Your task to perform on an android device: turn on translation in the chrome app Image 0: 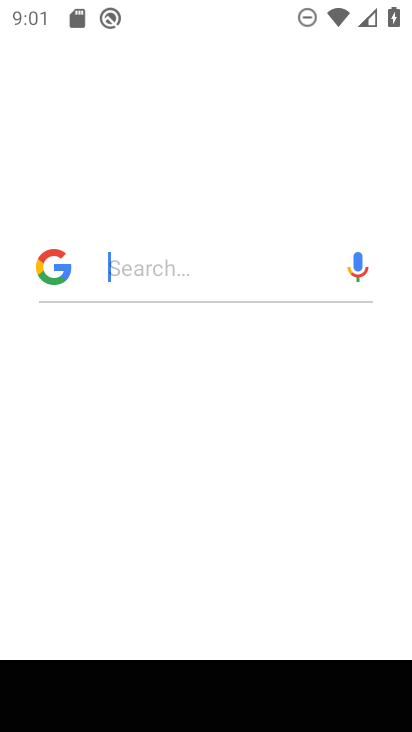
Step 0: drag from (1, 310) to (313, 468)
Your task to perform on an android device: turn on translation in the chrome app Image 1: 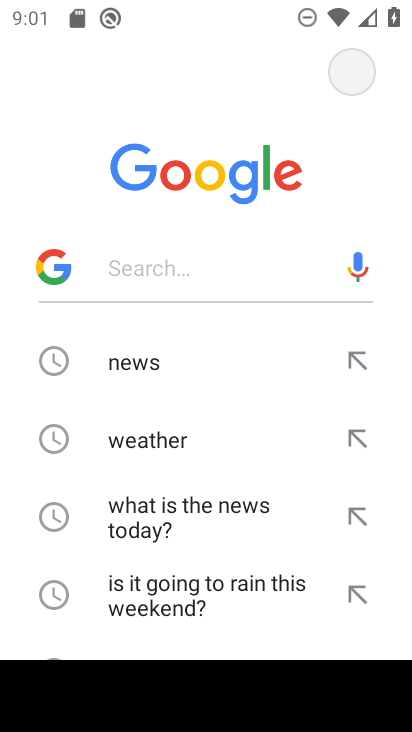
Step 1: press back button
Your task to perform on an android device: turn on translation in the chrome app Image 2: 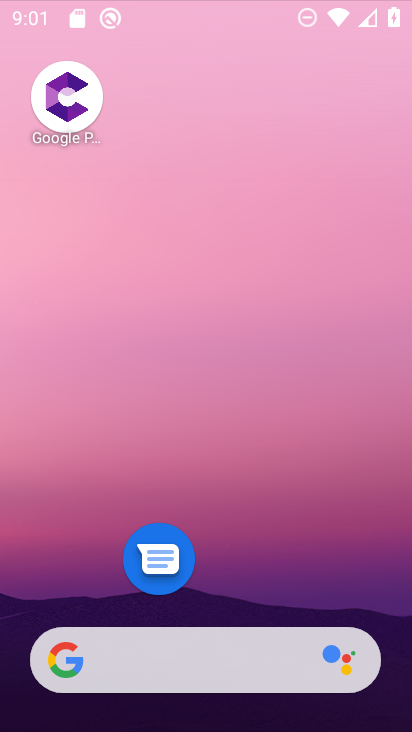
Step 2: press home button
Your task to perform on an android device: turn on translation in the chrome app Image 3: 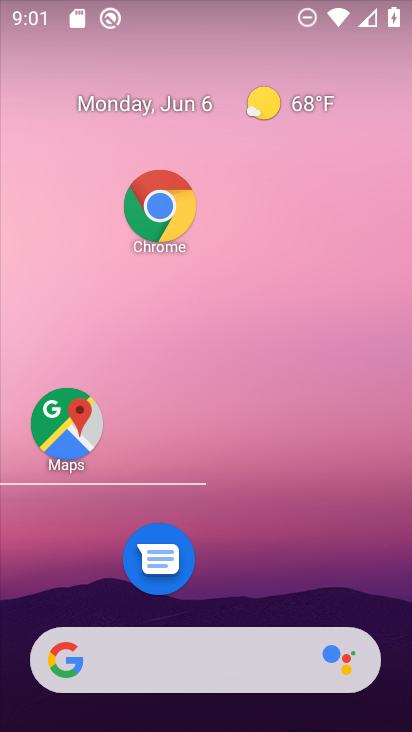
Step 3: drag from (261, 701) to (232, 82)
Your task to perform on an android device: turn on translation in the chrome app Image 4: 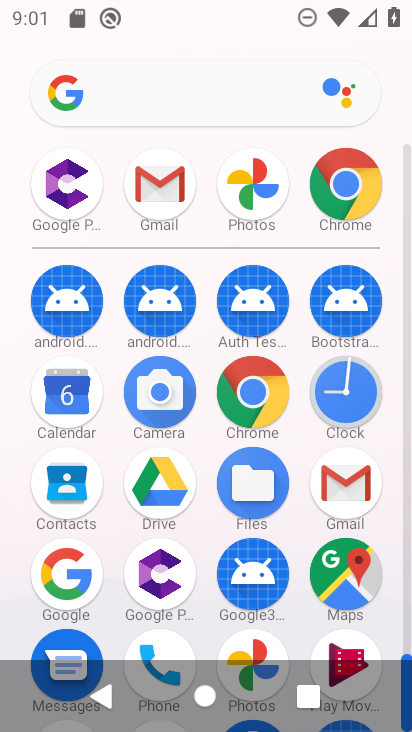
Step 4: drag from (233, 623) to (207, 223)
Your task to perform on an android device: turn on translation in the chrome app Image 5: 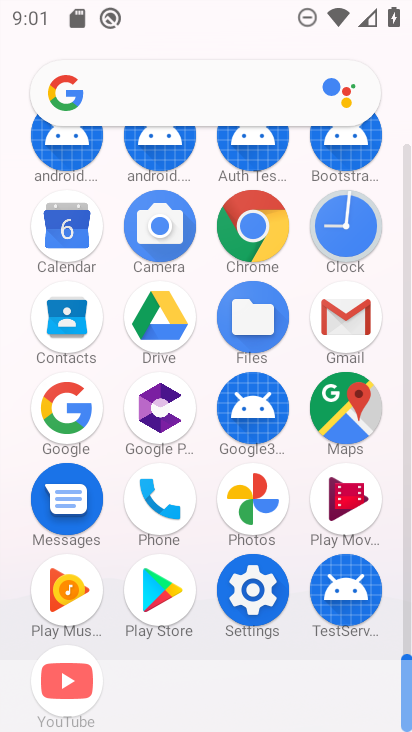
Step 5: click (251, 230)
Your task to perform on an android device: turn on translation in the chrome app Image 6: 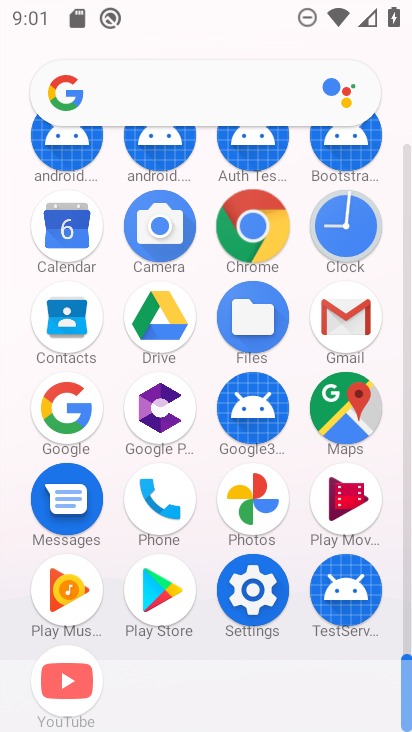
Step 6: click (251, 230)
Your task to perform on an android device: turn on translation in the chrome app Image 7: 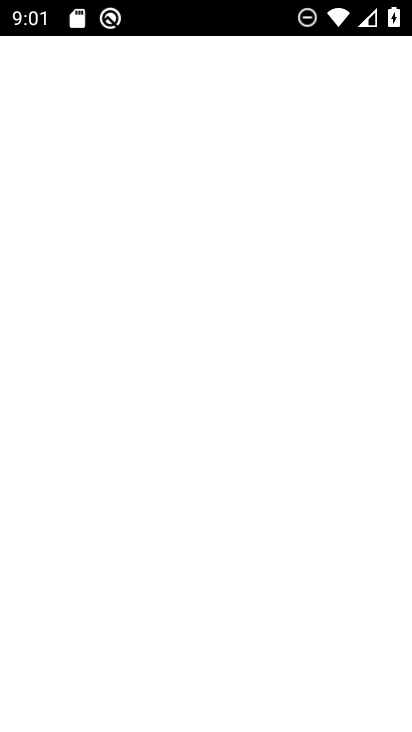
Step 7: click (250, 229)
Your task to perform on an android device: turn on translation in the chrome app Image 8: 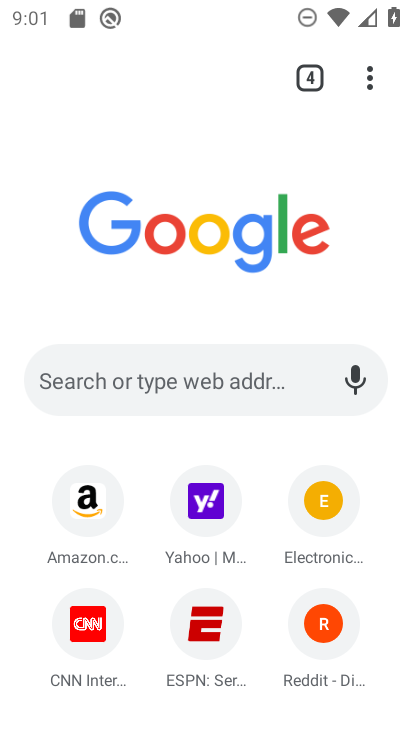
Step 8: click (373, 85)
Your task to perform on an android device: turn on translation in the chrome app Image 9: 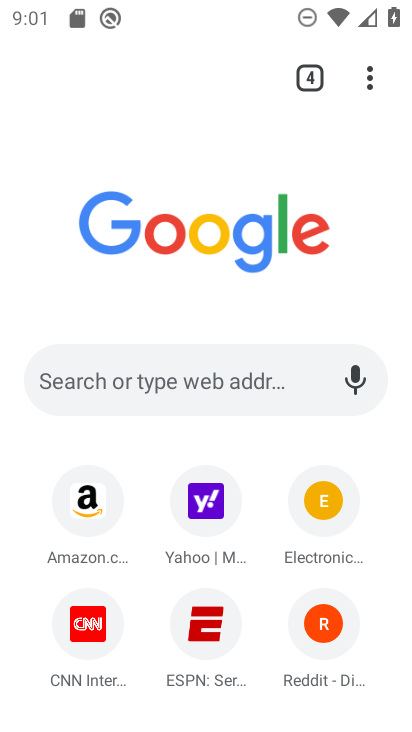
Step 9: drag from (369, 84) to (87, 609)
Your task to perform on an android device: turn on translation in the chrome app Image 10: 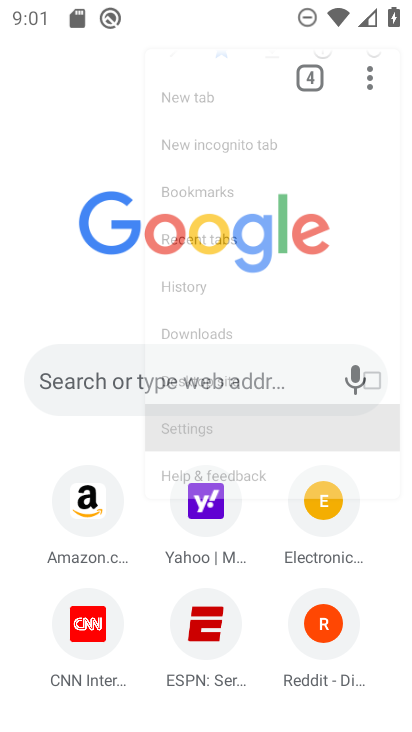
Step 10: click (87, 609)
Your task to perform on an android device: turn on translation in the chrome app Image 11: 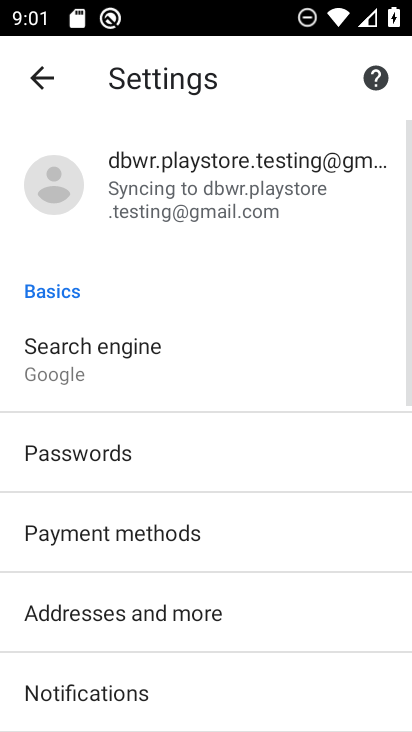
Step 11: drag from (87, 246) to (87, 167)
Your task to perform on an android device: turn on translation in the chrome app Image 12: 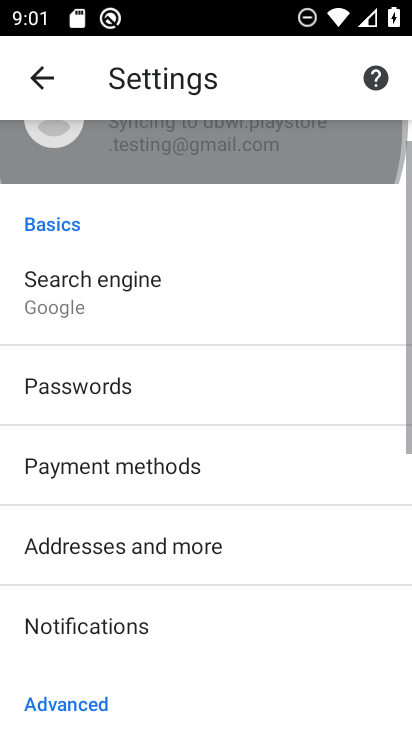
Step 12: drag from (173, 469) to (148, 207)
Your task to perform on an android device: turn on translation in the chrome app Image 13: 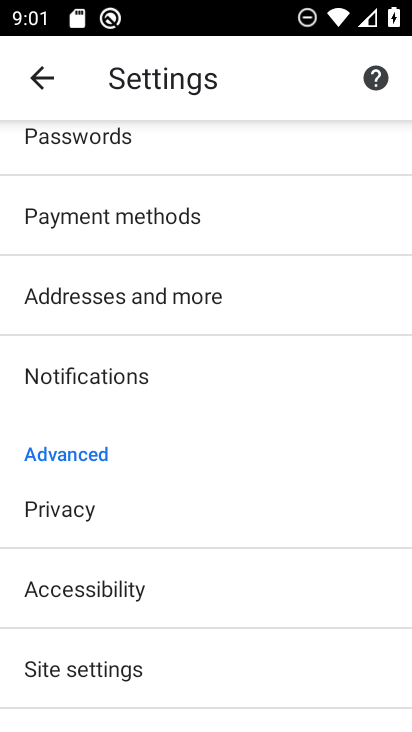
Step 13: drag from (189, 513) to (193, 170)
Your task to perform on an android device: turn on translation in the chrome app Image 14: 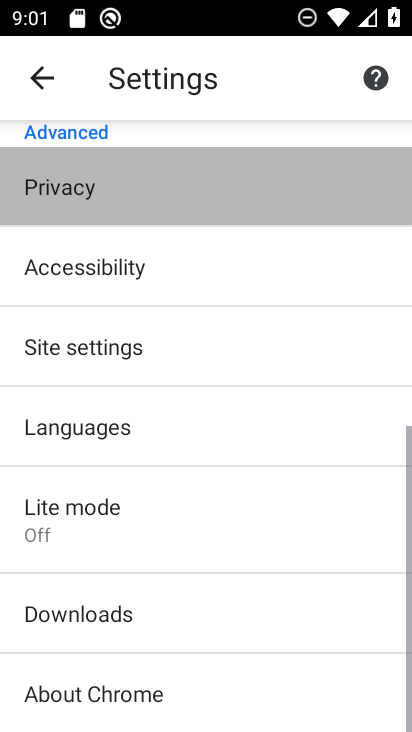
Step 14: drag from (237, 539) to (204, 284)
Your task to perform on an android device: turn on translation in the chrome app Image 15: 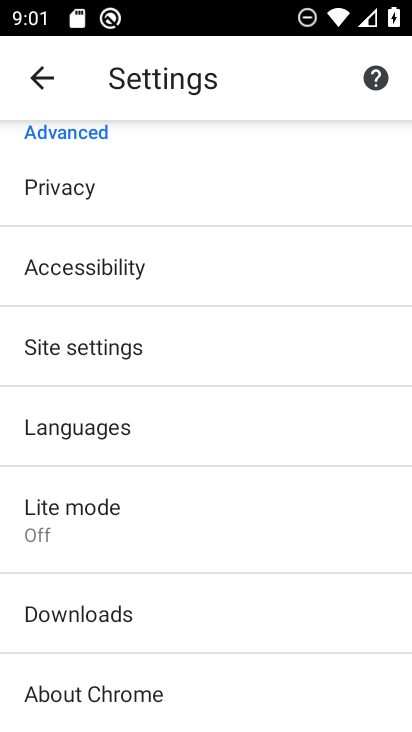
Step 15: click (77, 430)
Your task to perform on an android device: turn on translation in the chrome app Image 16: 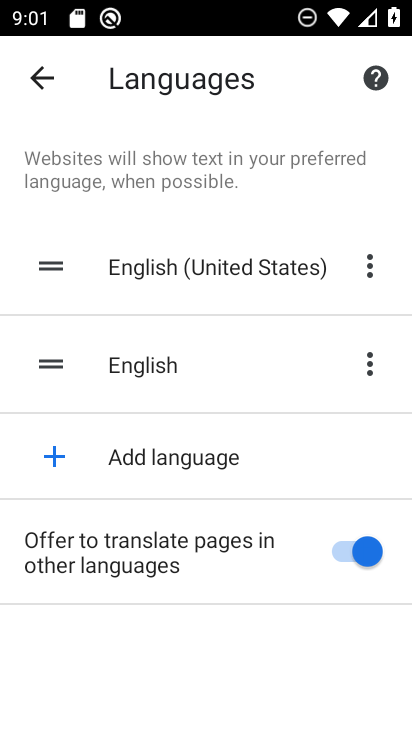
Step 16: task complete